Your task to perform on an android device: refresh tabs in the chrome app Image 0: 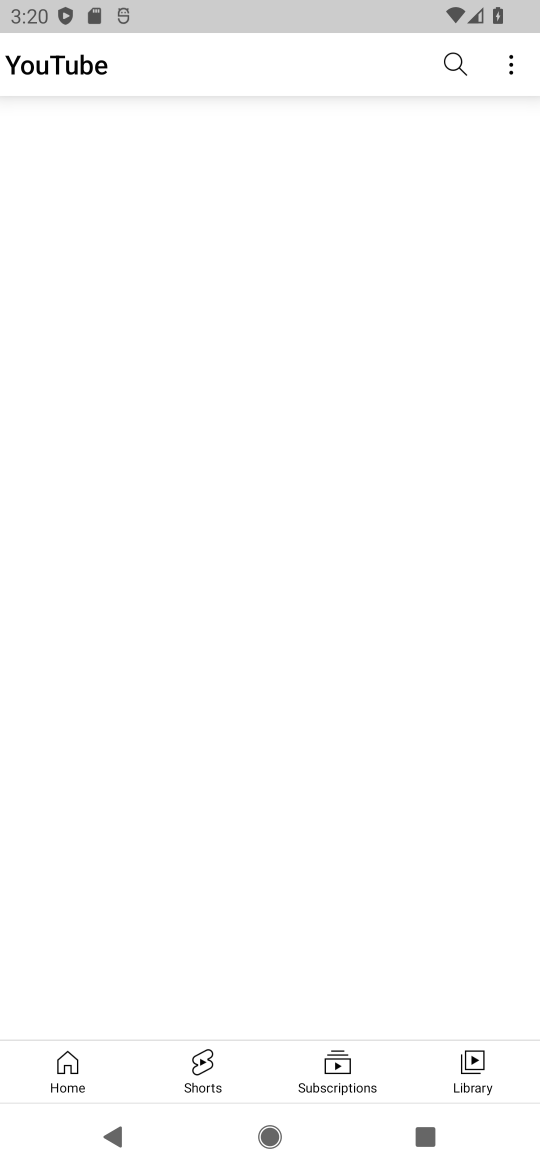
Step 0: press home button
Your task to perform on an android device: refresh tabs in the chrome app Image 1: 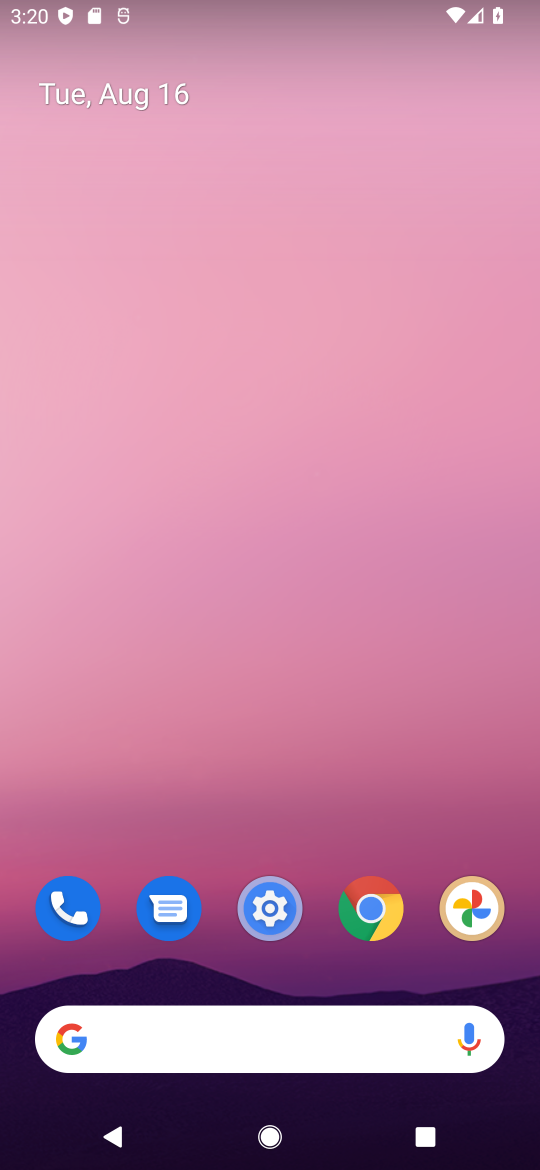
Step 1: drag from (320, 984) to (364, 132)
Your task to perform on an android device: refresh tabs in the chrome app Image 2: 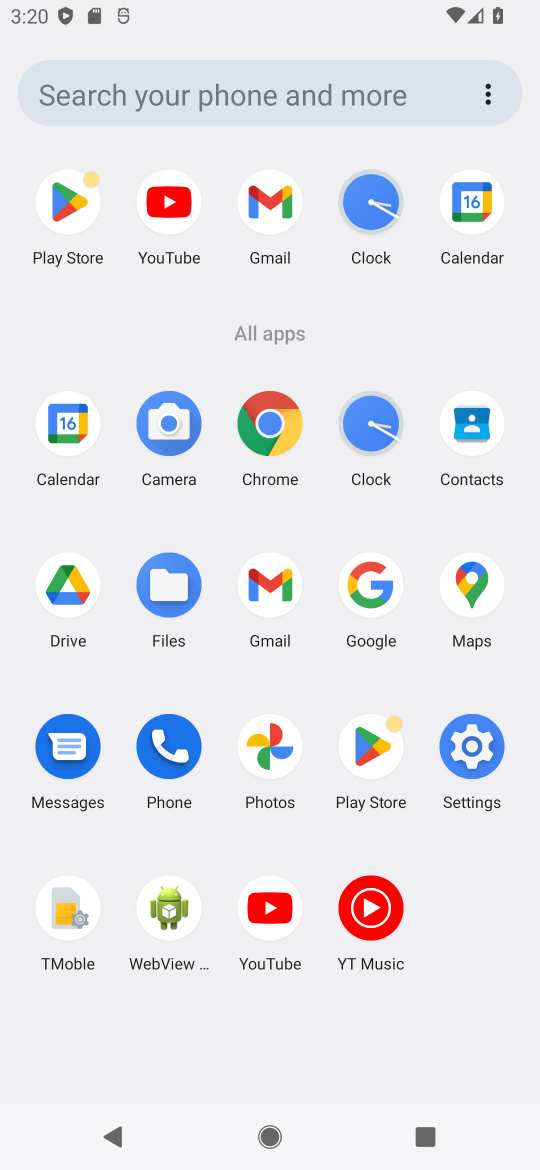
Step 2: click (265, 421)
Your task to perform on an android device: refresh tabs in the chrome app Image 3: 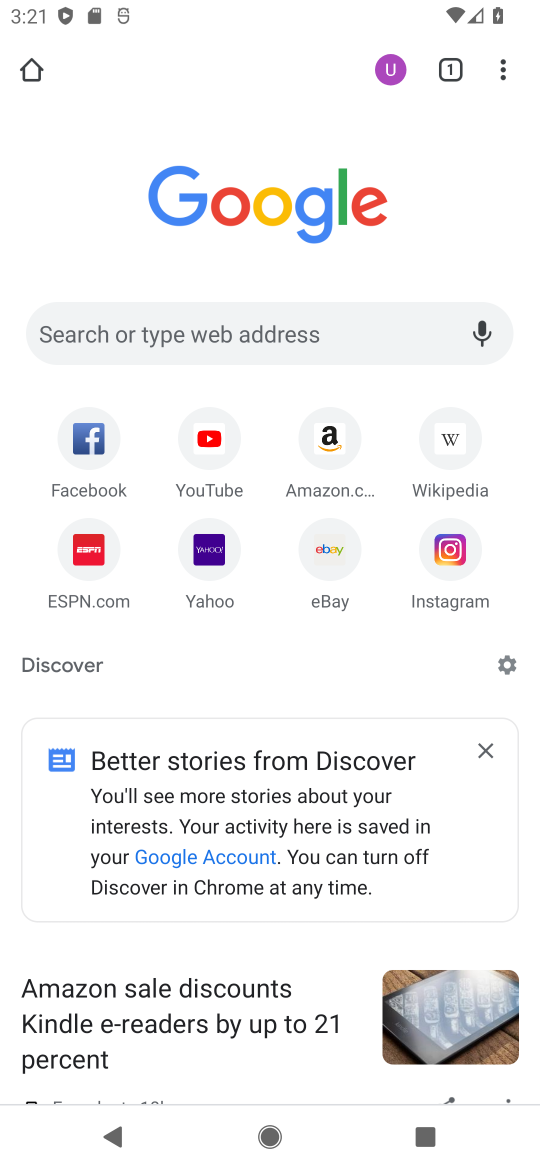
Step 3: click (500, 66)
Your task to perform on an android device: refresh tabs in the chrome app Image 4: 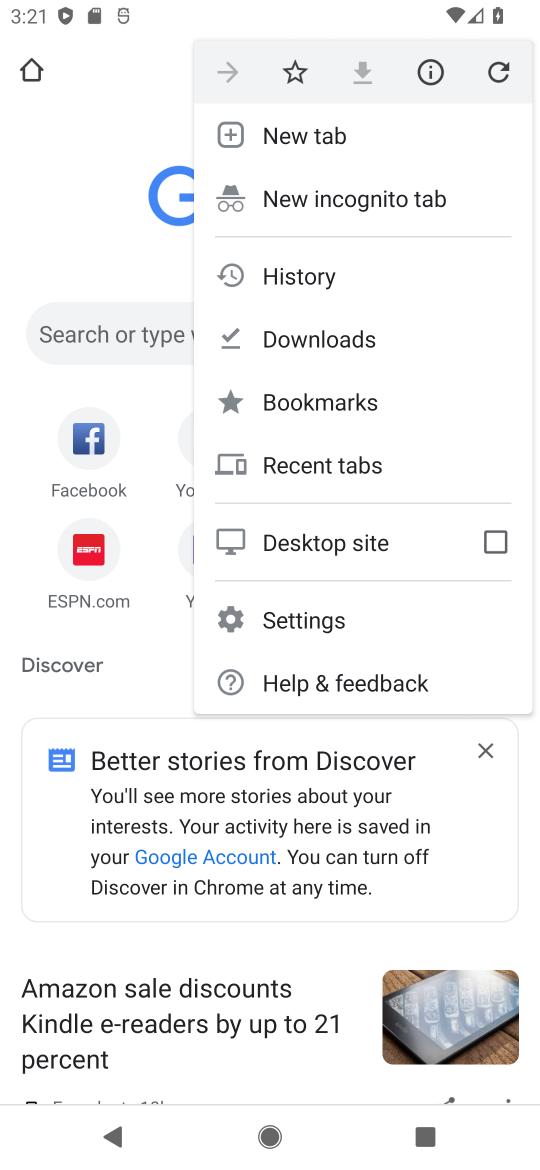
Step 4: click (500, 66)
Your task to perform on an android device: refresh tabs in the chrome app Image 5: 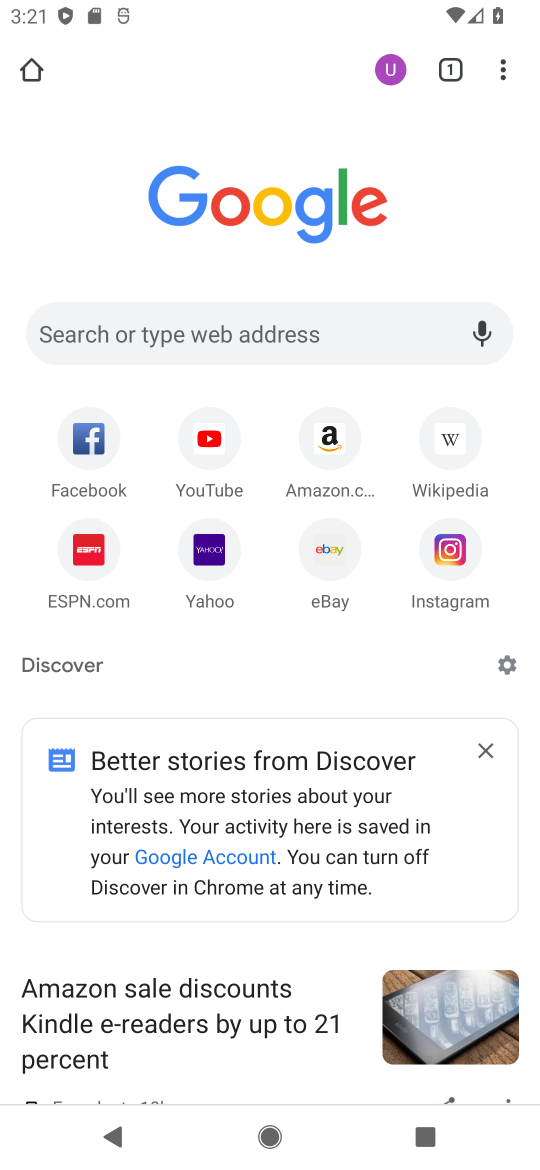
Step 5: task complete